Your task to perform on an android device: Open my contact list Image 0: 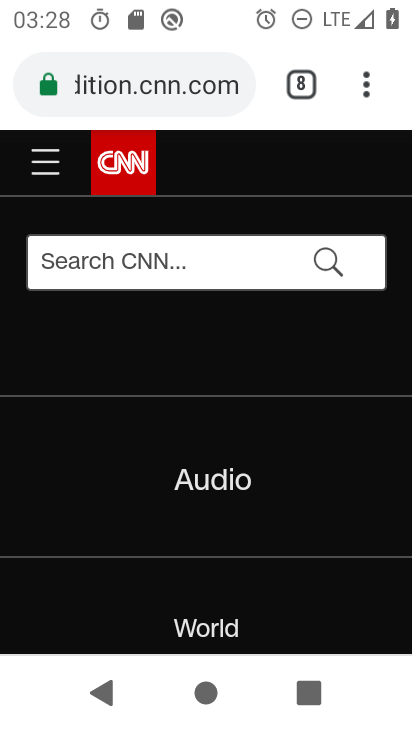
Step 0: press home button
Your task to perform on an android device: Open my contact list Image 1: 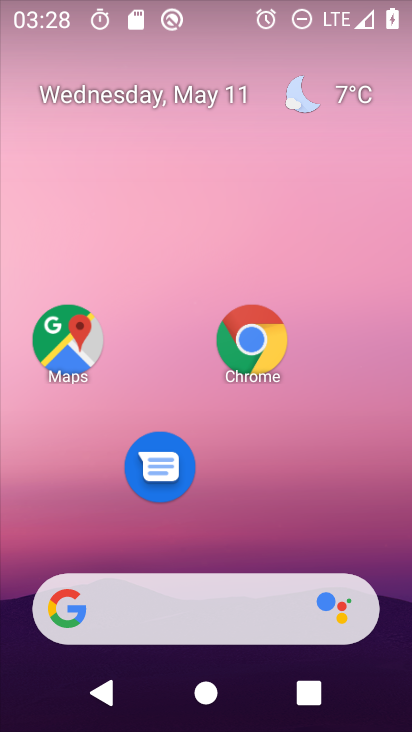
Step 1: drag from (163, 633) to (279, 159)
Your task to perform on an android device: Open my contact list Image 2: 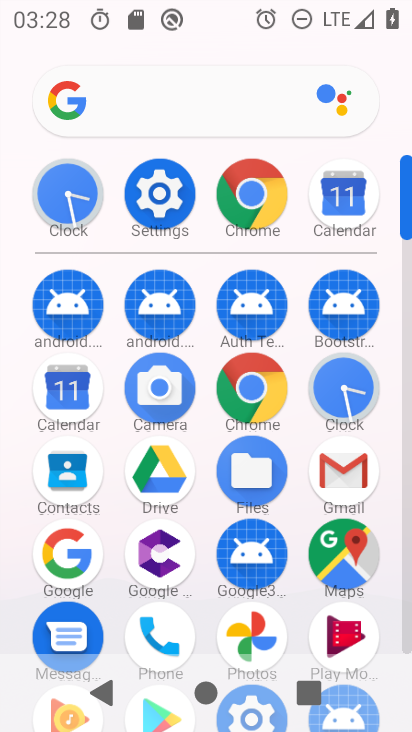
Step 2: click (64, 475)
Your task to perform on an android device: Open my contact list Image 3: 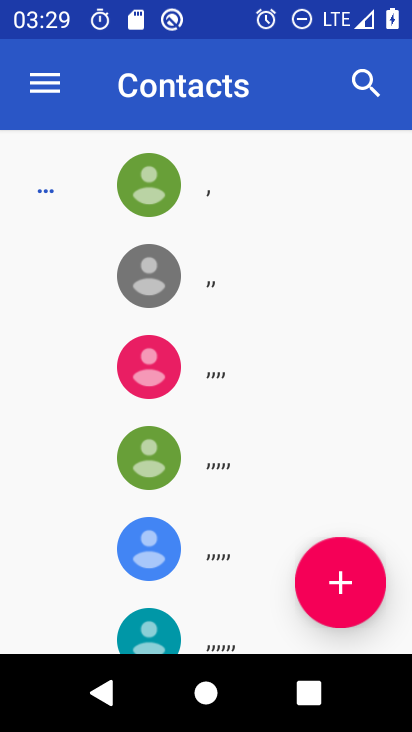
Step 3: task complete